Your task to perform on an android device: Go to network settings Image 0: 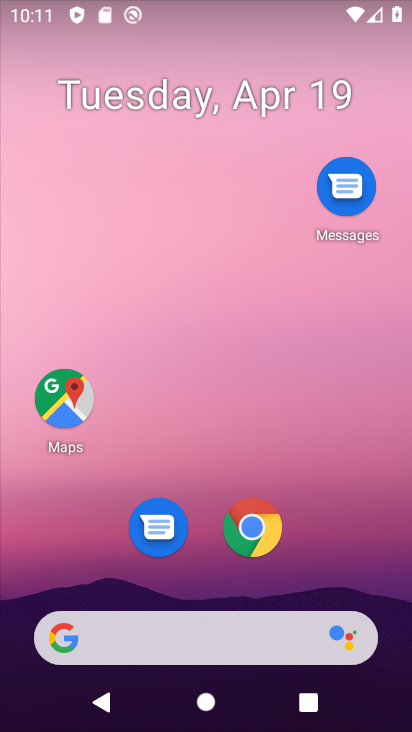
Step 0: click (254, 538)
Your task to perform on an android device: Go to network settings Image 1: 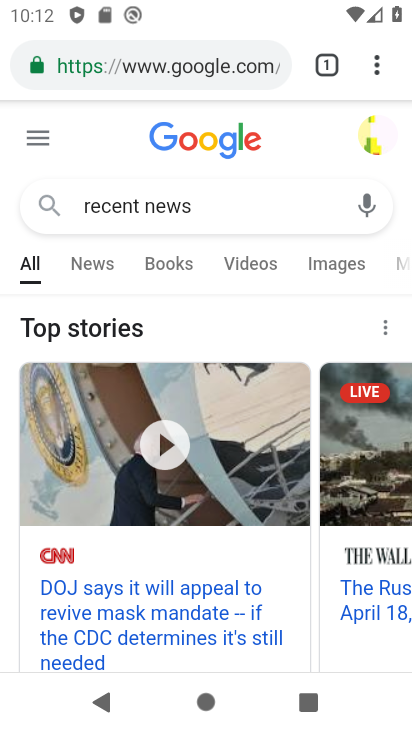
Step 1: press home button
Your task to perform on an android device: Go to network settings Image 2: 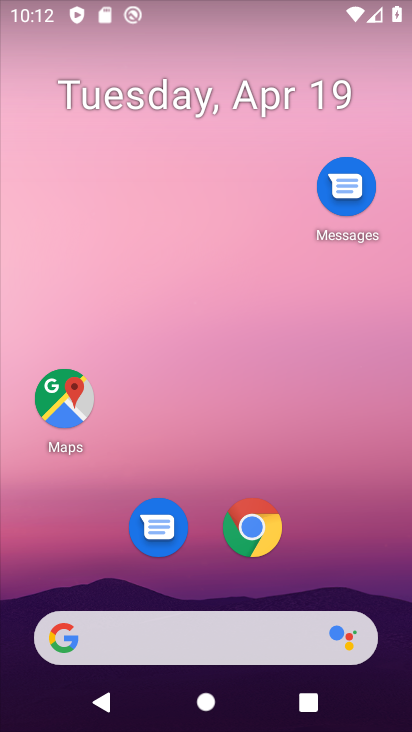
Step 2: drag from (305, 569) to (250, 115)
Your task to perform on an android device: Go to network settings Image 3: 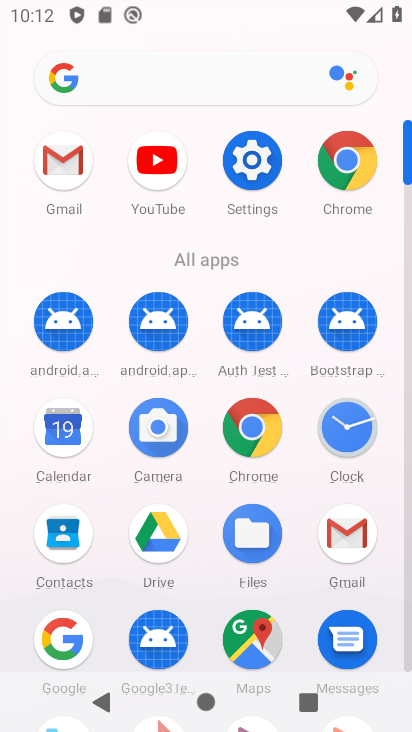
Step 3: click (263, 190)
Your task to perform on an android device: Go to network settings Image 4: 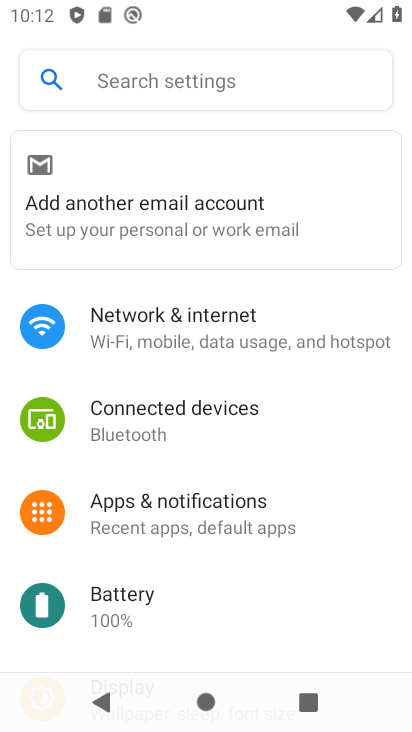
Step 4: click (183, 310)
Your task to perform on an android device: Go to network settings Image 5: 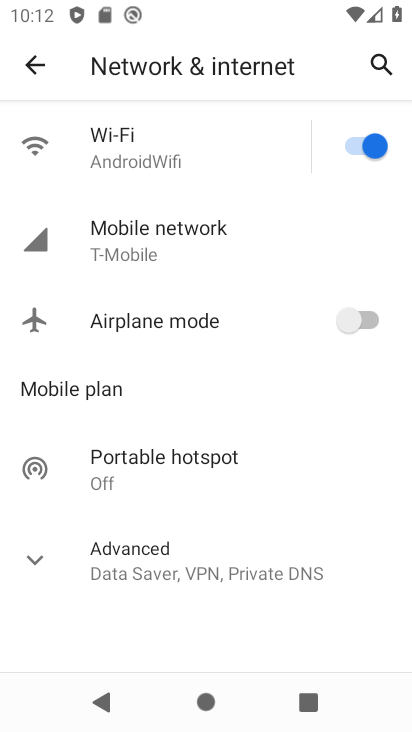
Step 5: task complete